Your task to perform on an android device: Go to Maps Image 0: 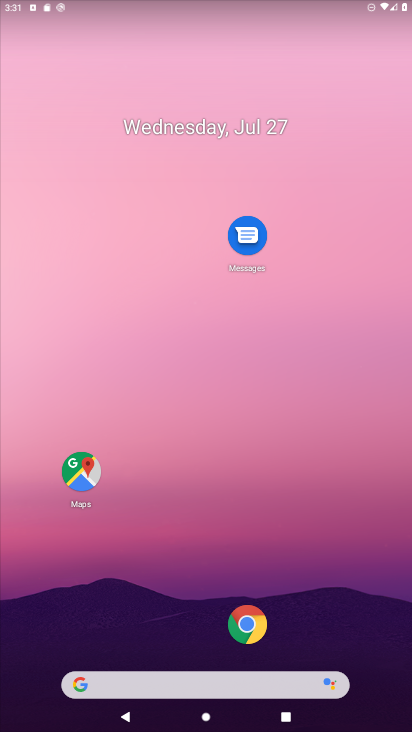
Step 0: click (72, 473)
Your task to perform on an android device: Go to Maps Image 1: 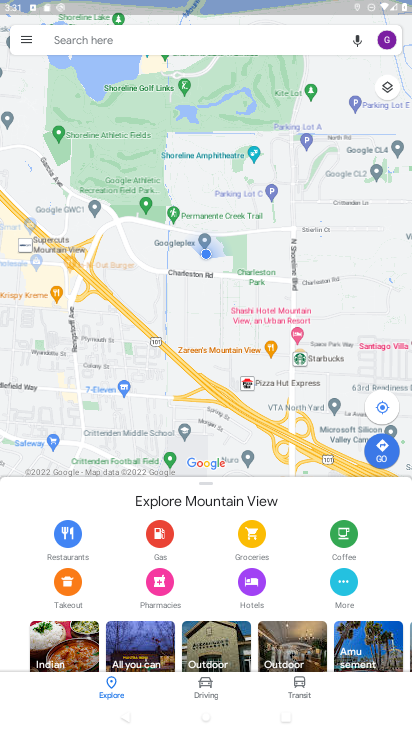
Step 1: task complete